Your task to perform on an android device: Set the phone to "Do not disturb". Image 0: 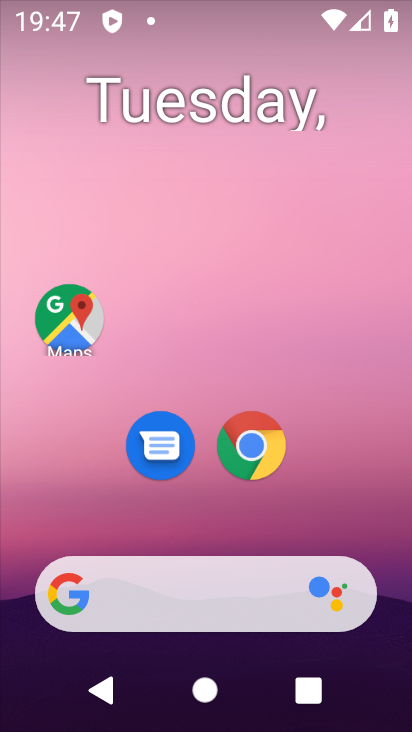
Step 0: drag from (258, 535) to (249, 1)
Your task to perform on an android device: Set the phone to "Do not disturb". Image 1: 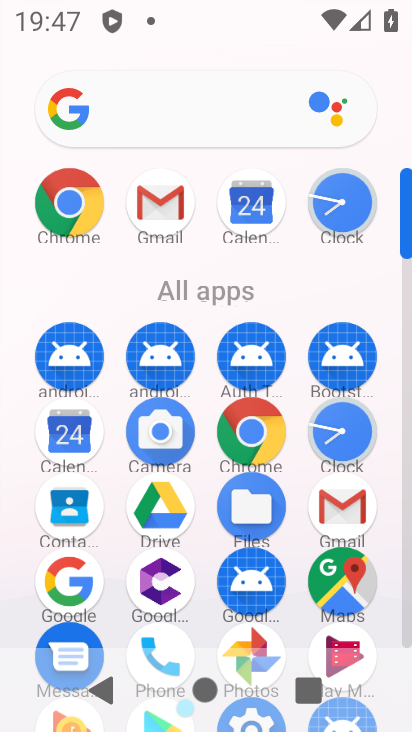
Step 1: drag from (285, 606) to (322, 199)
Your task to perform on an android device: Set the phone to "Do not disturb". Image 2: 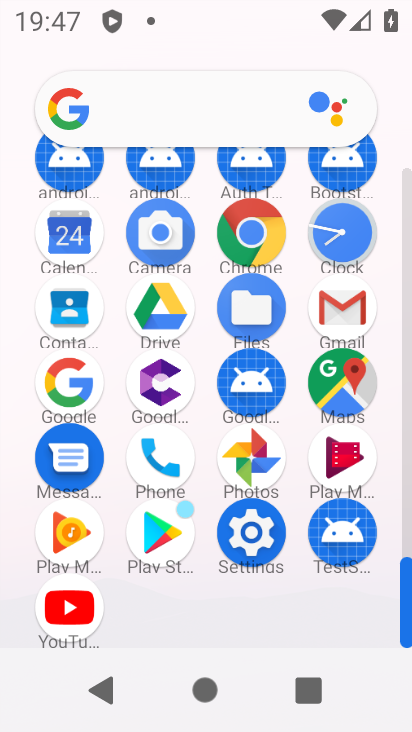
Step 2: click (250, 541)
Your task to perform on an android device: Set the phone to "Do not disturb". Image 3: 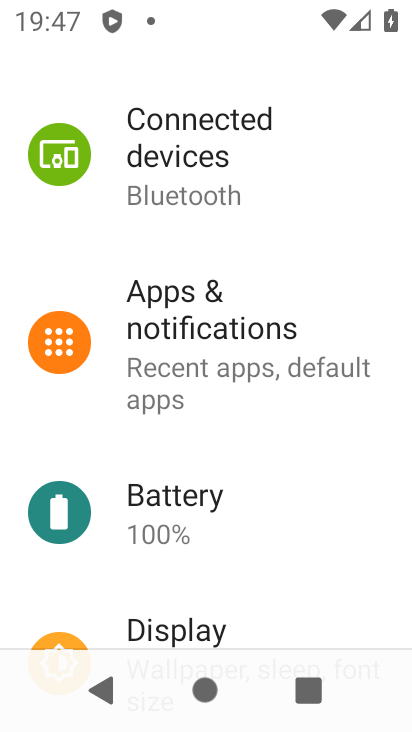
Step 3: drag from (219, 552) to (227, 57)
Your task to perform on an android device: Set the phone to "Do not disturb". Image 4: 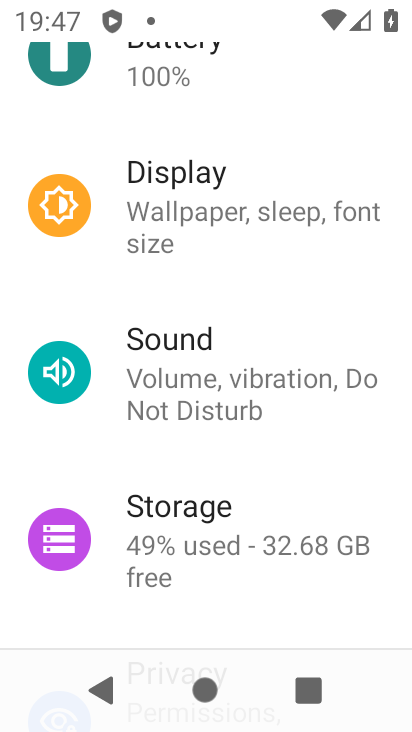
Step 4: click (167, 393)
Your task to perform on an android device: Set the phone to "Do not disturb". Image 5: 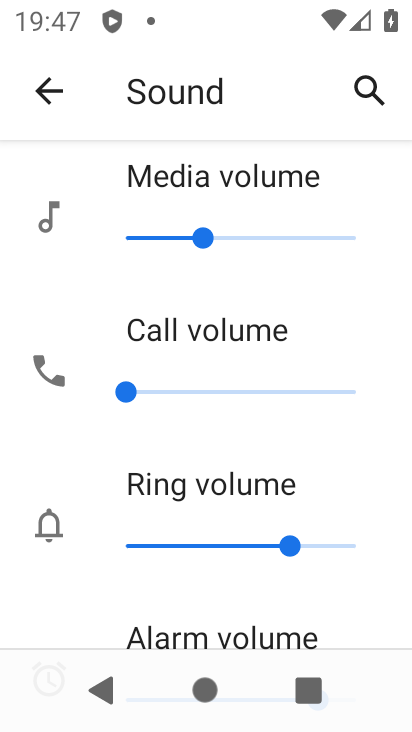
Step 5: drag from (205, 508) to (221, 401)
Your task to perform on an android device: Set the phone to "Do not disturb". Image 6: 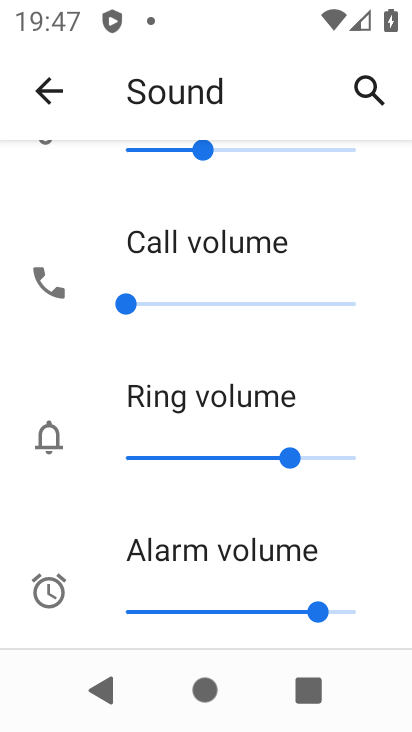
Step 6: drag from (227, 477) to (191, 12)
Your task to perform on an android device: Set the phone to "Do not disturb". Image 7: 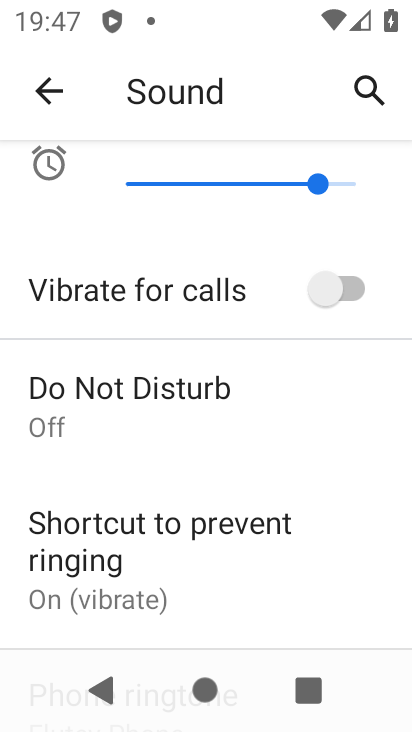
Step 7: click (102, 406)
Your task to perform on an android device: Set the phone to "Do not disturb". Image 8: 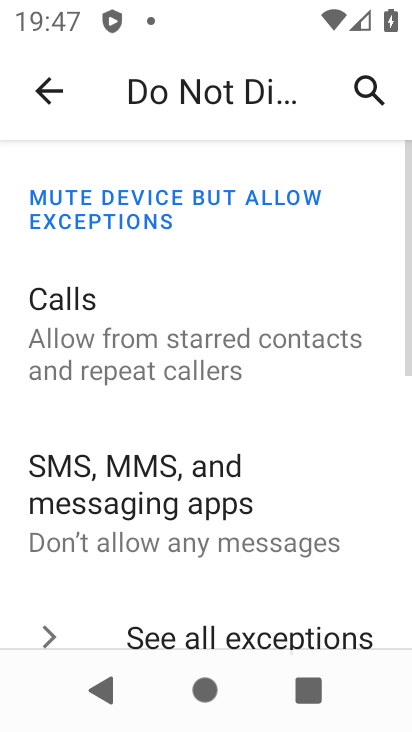
Step 8: drag from (167, 507) to (209, 93)
Your task to perform on an android device: Set the phone to "Do not disturb". Image 9: 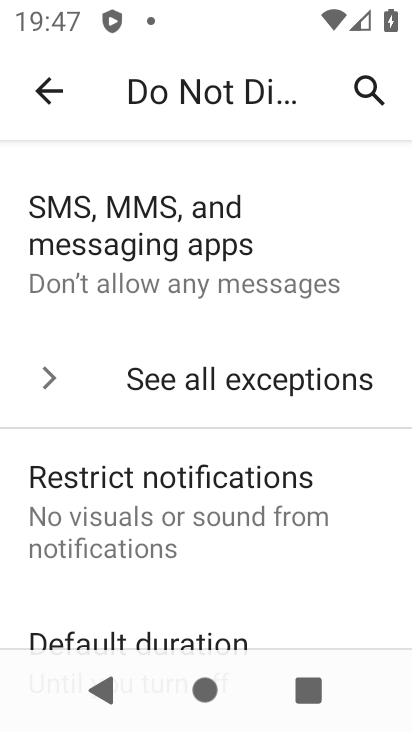
Step 9: drag from (137, 577) to (155, 186)
Your task to perform on an android device: Set the phone to "Do not disturb". Image 10: 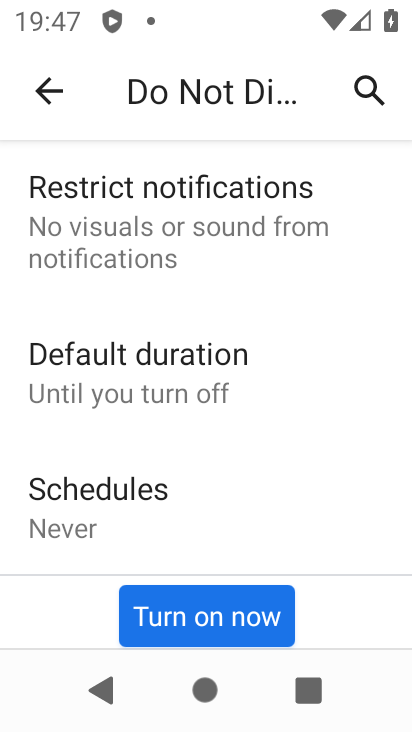
Step 10: click (161, 614)
Your task to perform on an android device: Set the phone to "Do not disturb". Image 11: 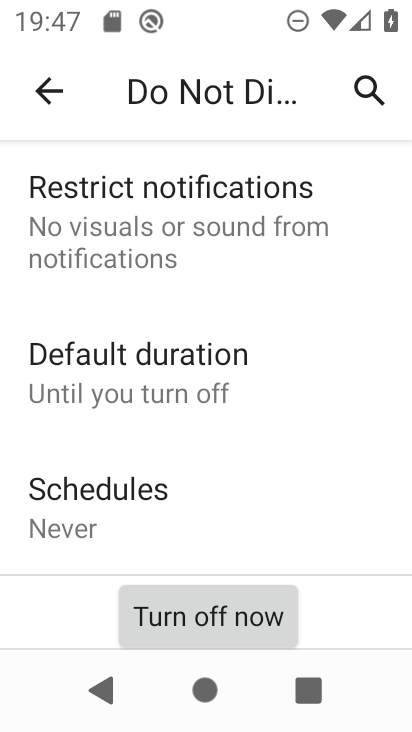
Step 11: task complete